Your task to perform on an android device: turn smart compose on in the gmail app Image 0: 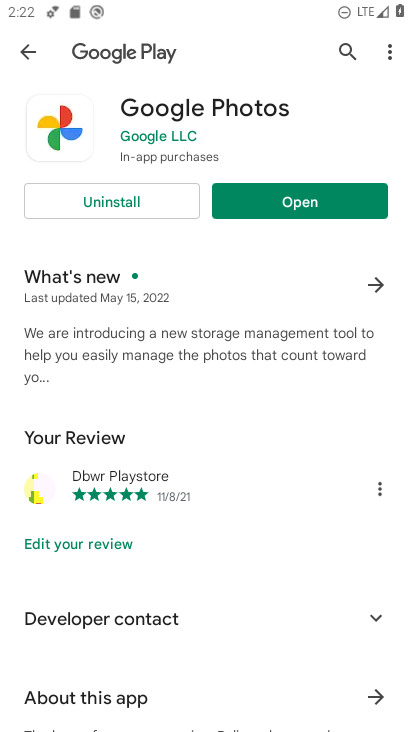
Step 0: press home button
Your task to perform on an android device: turn smart compose on in the gmail app Image 1: 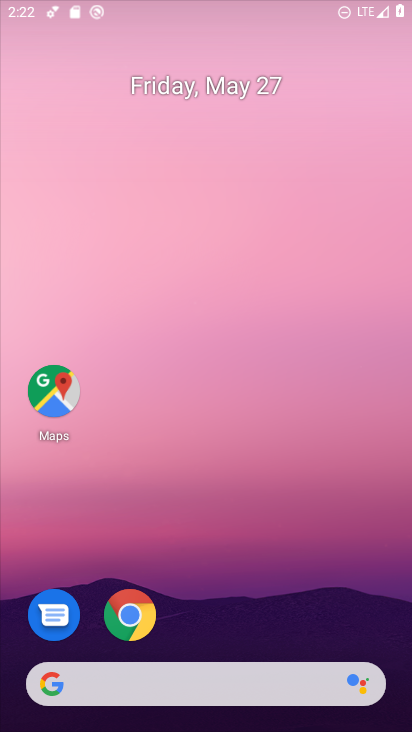
Step 1: drag from (243, 628) to (213, 181)
Your task to perform on an android device: turn smart compose on in the gmail app Image 2: 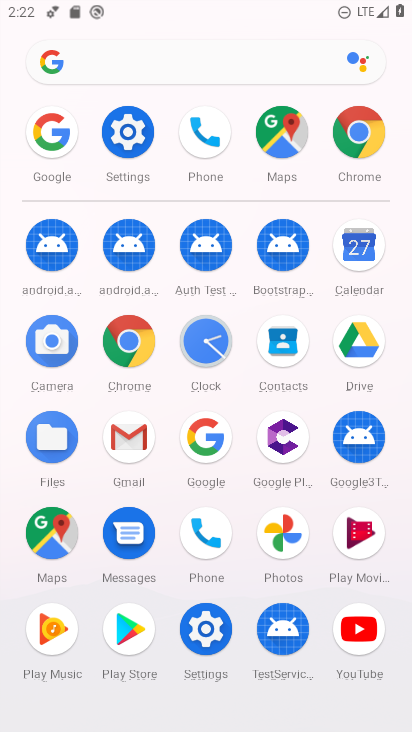
Step 2: click (138, 448)
Your task to perform on an android device: turn smart compose on in the gmail app Image 3: 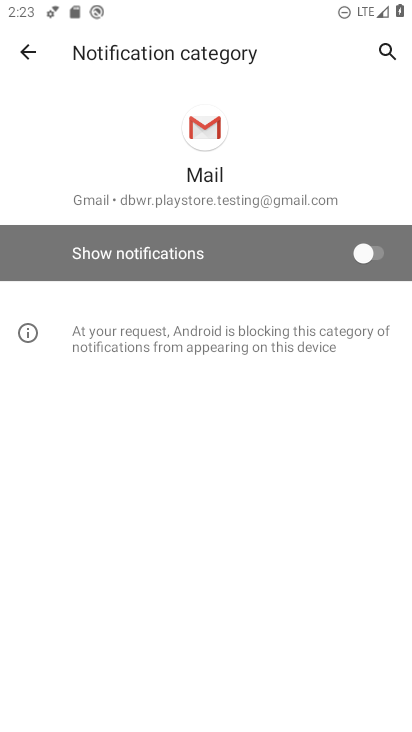
Step 3: click (31, 60)
Your task to perform on an android device: turn smart compose on in the gmail app Image 4: 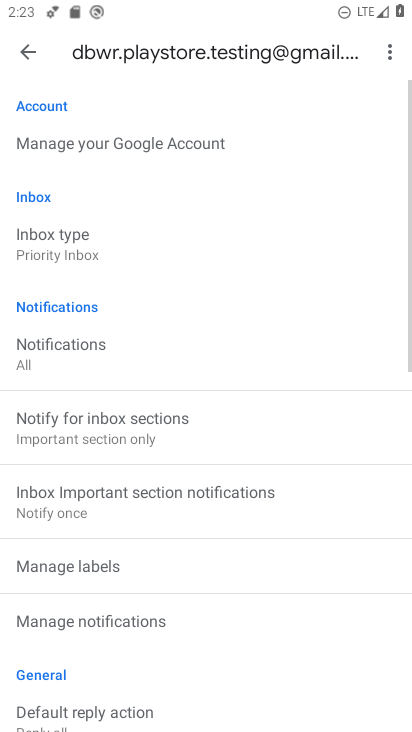
Step 4: task complete